Your task to perform on an android device: delete browsing data in the chrome app Image 0: 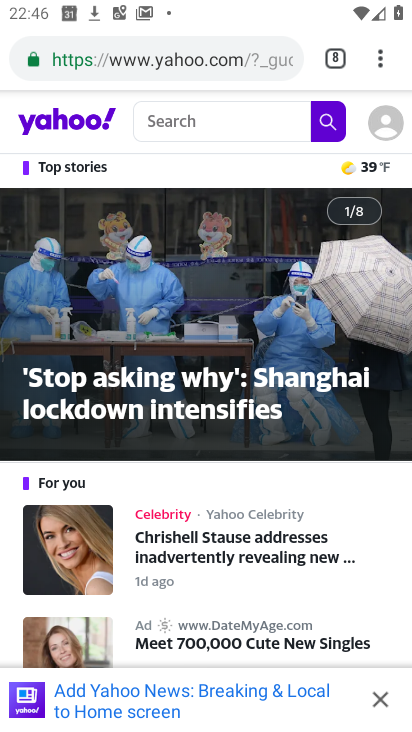
Step 0: click (382, 64)
Your task to perform on an android device: delete browsing data in the chrome app Image 1: 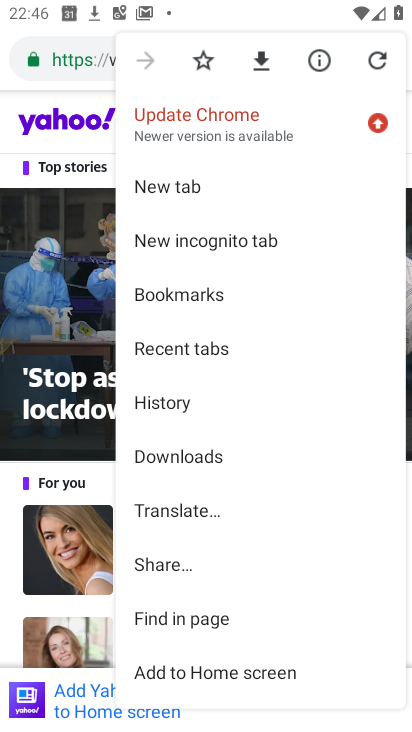
Step 1: drag from (239, 581) to (299, 373)
Your task to perform on an android device: delete browsing data in the chrome app Image 2: 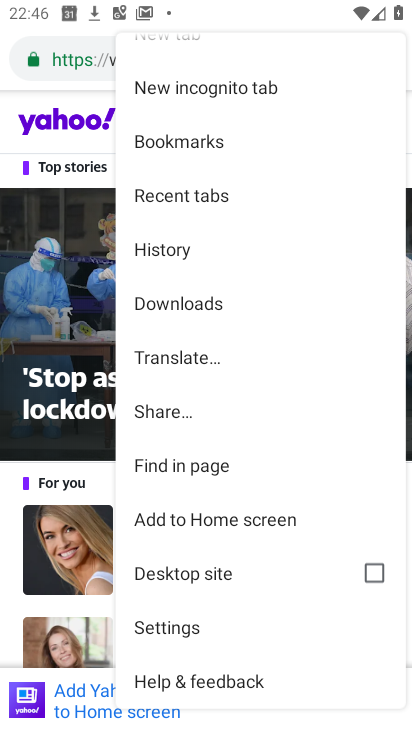
Step 2: click (177, 623)
Your task to perform on an android device: delete browsing data in the chrome app Image 3: 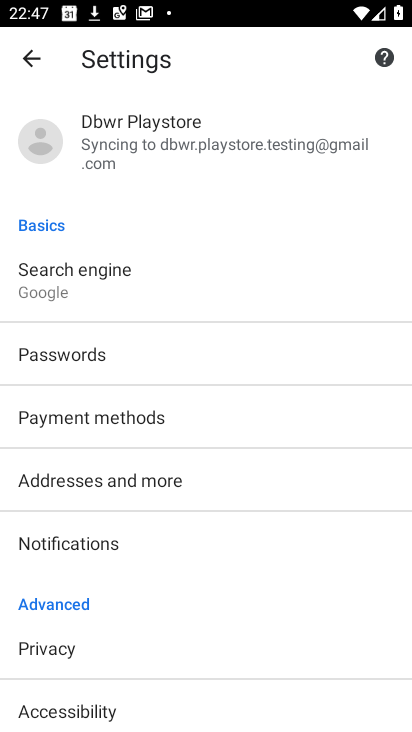
Step 3: drag from (177, 623) to (228, 398)
Your task to perform on an android device: delete browsing data in the chrome app Image 4: 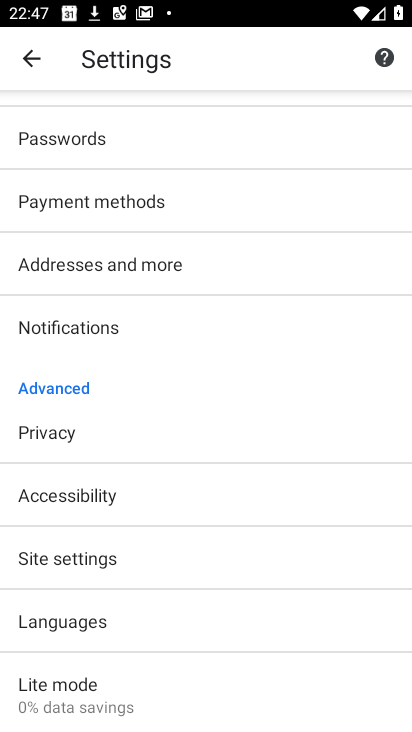
Step 4: drag from (87, 628) to (221, 388)
Your task to perform on an android device: delete browsing data in the chrome app Image 5: 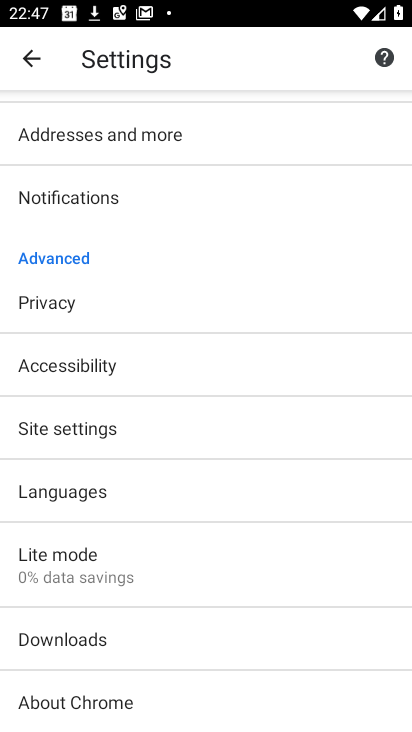
Step 5: click (115, 577)
Your task to perform on an android device: delete browsing data in the chrome app Image 6: 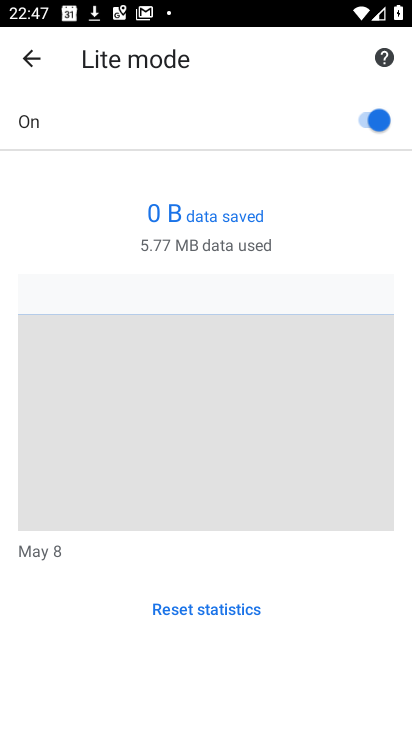
Step 6: click (12, 82)
Your task to perform on an android device: delete browsing data in the chrome app Image 7: 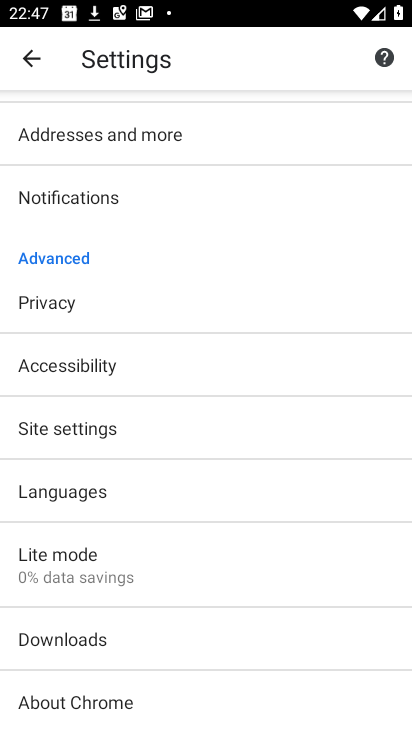
Step 7: click (74, 300)
Your task to perform on an android device: delete browsing data in the chrome app Image 8: 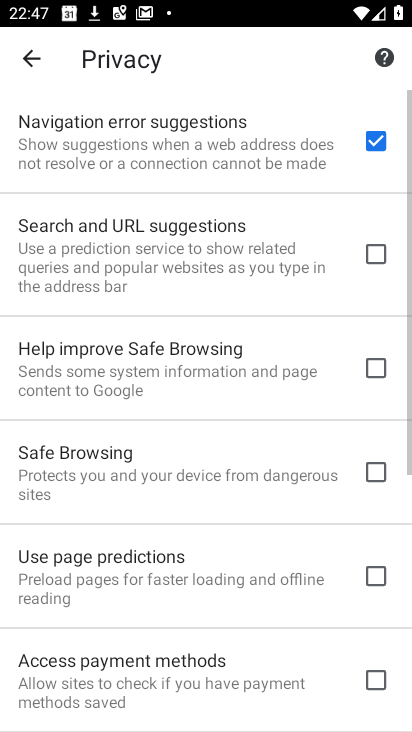
Step 8: drag from (194, 524) to (316, 200)
Your task to perform on an android device: delete browsing data in the chrome app Image 9: 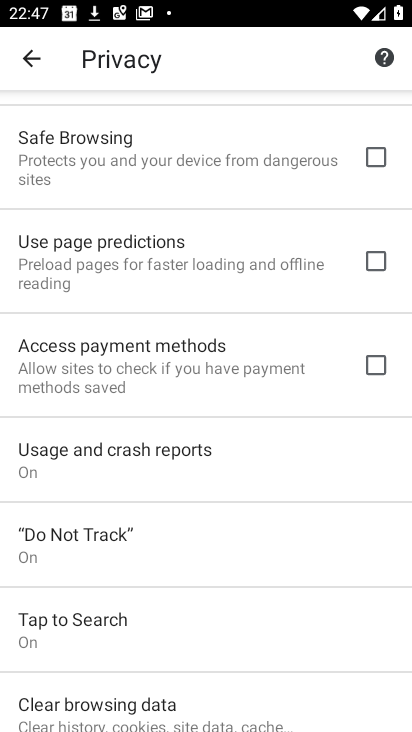
Step 9: drag from (196, 581) to (233, 245)
Your task to perform on an android device: delete browsing data in the chrome app Image 10: 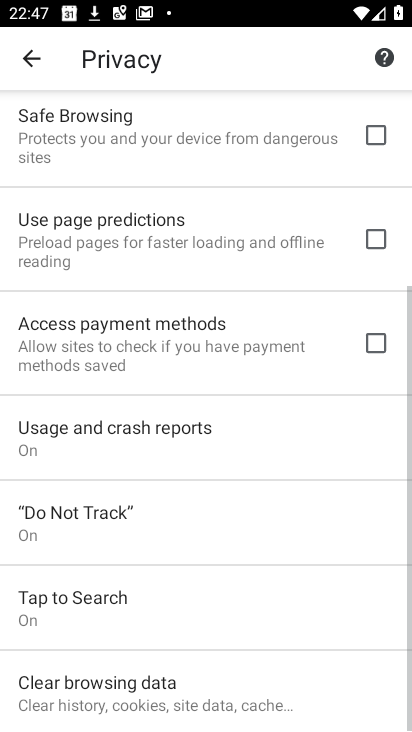
Step 10: click (146, 678)
Your task to perform on an android device: delete browsing data in the chrome app Image 11: 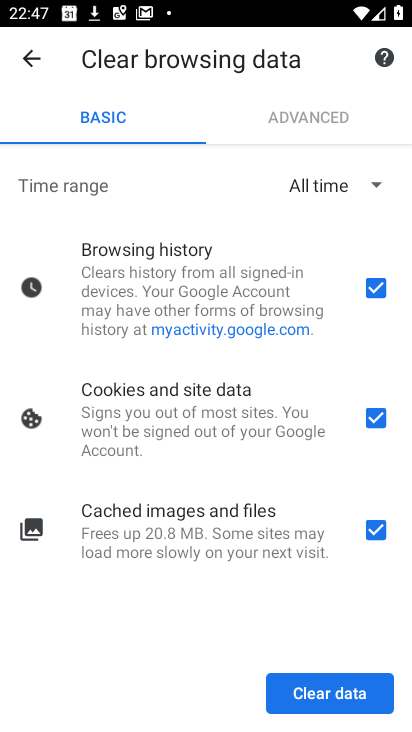
Step 11: click (367, 529)
Your task to perform on an android device: delete browsing data in the chrome app Image 12: 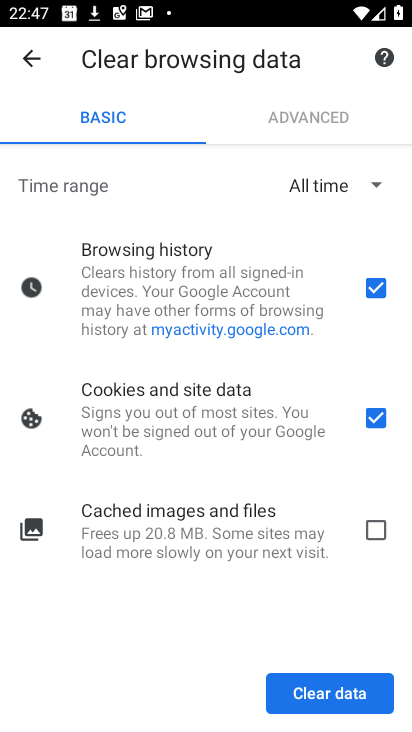
Step 12: click (378, 420)
Your task to perform on an android device: delete browsing data in the chrome app Image 13: 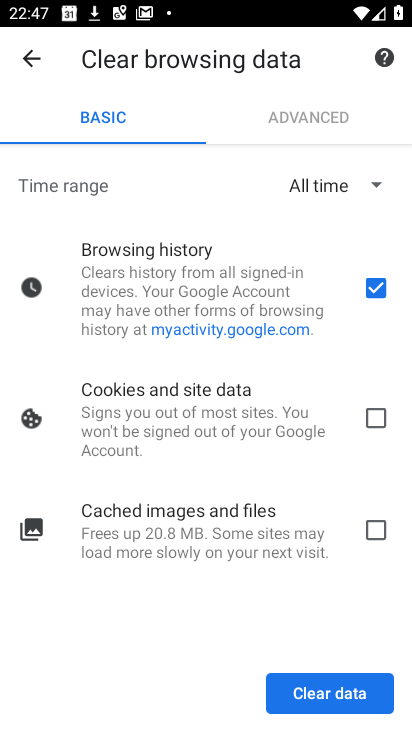
Step 13: click (325, 696)
Your task to perform on an android device: delete browsing data in the chrome app Image 14: 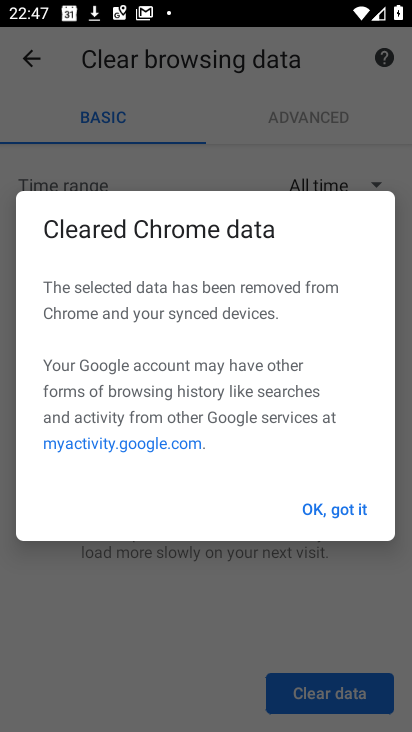
Step 14: task complete